Your task to perform on an android device: turn on priority inbox in the gmail app Image 0: 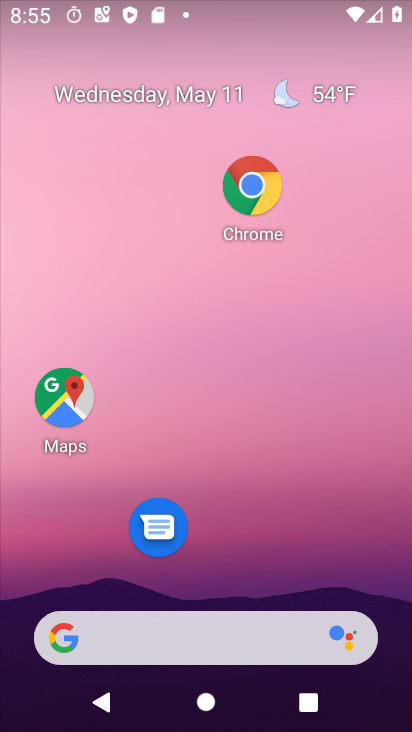
Step 0: drag from (260, 552) to (197, 165)
Your task to perform on an android device: turn on priority inbox in the gmail app Image 1: 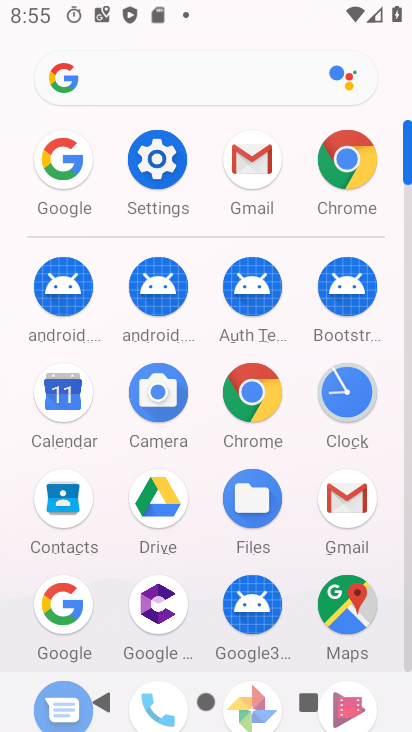
Step 1: click (253, 154)
Your task to perform on an android device: turn on priority inbox in the gmail app Image 2: 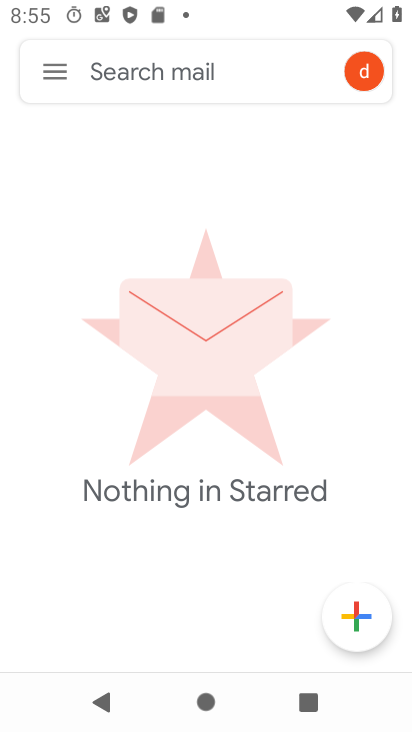
Step 2: click (50, 68)
Your task to perform on an android device: turn on priority inbox in the gmail app Image 3: 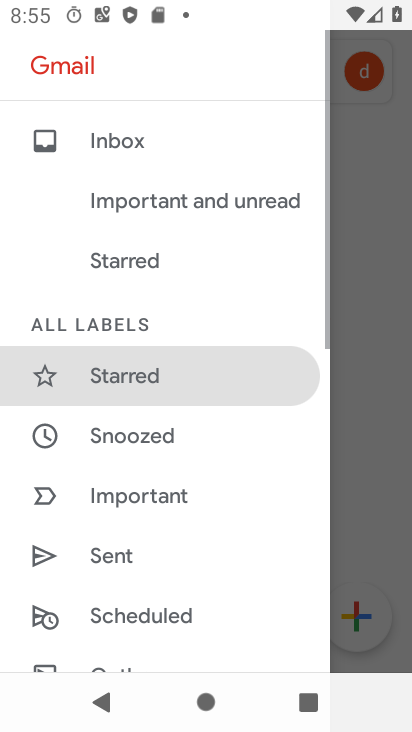
Step 3: drag from (175, 567) to (195, 75)
Your task to perform on an android device: turn on priority inbox in the gmail app Image 4: 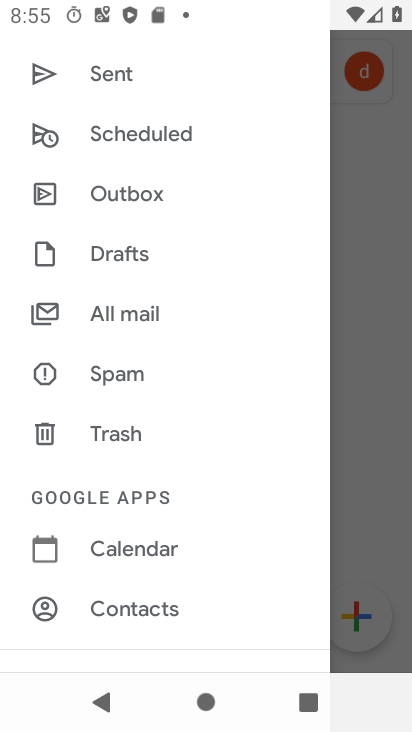
Step 4: drag from (140, 600) to (171, 183)
Your task to perform on an android device: turn on priority inbox in the gmail app Image 5: 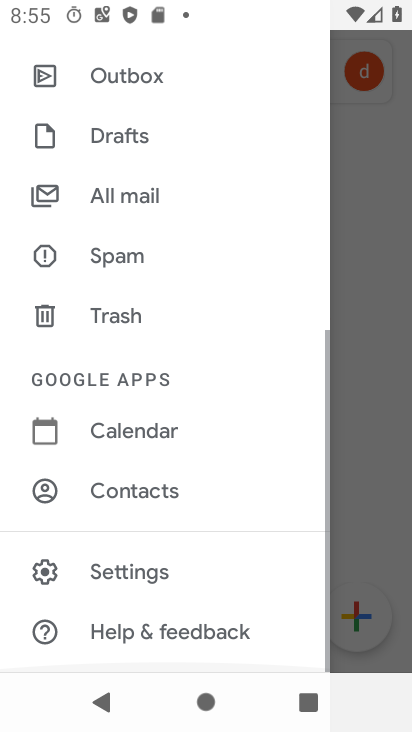
Step 5: click (123, 576)
Your task to perform on an android device: turn on priority inbox in the gmail app Image 6: 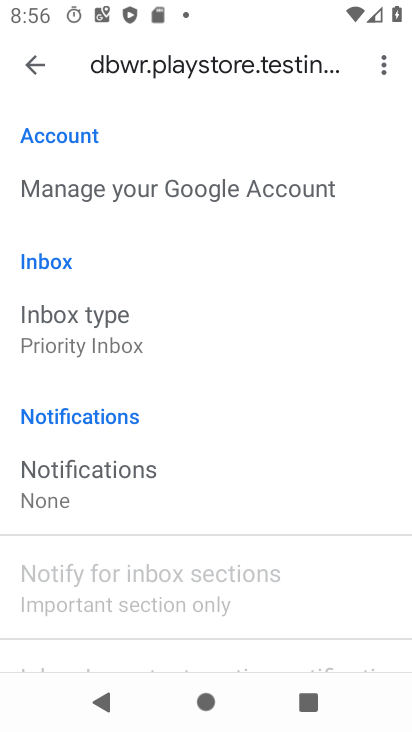
Step 6: task complete